Your task to perform on an android device: open sync settings in chrome Image 0: 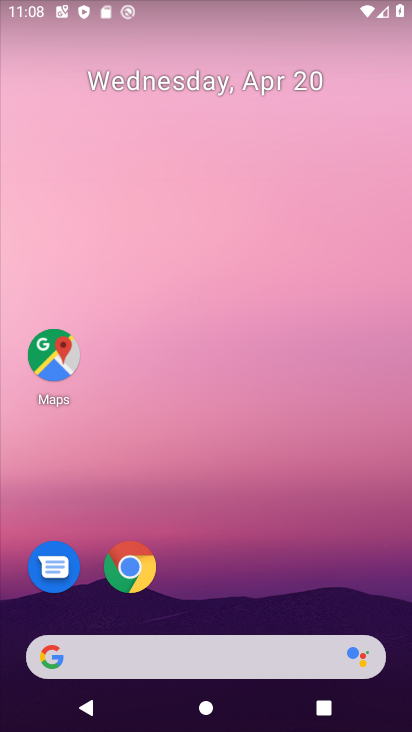
Step 0: drag from (258, 622) to (224, 81)
Your task to perform on an android device: open sync settings in chrome Image 1: 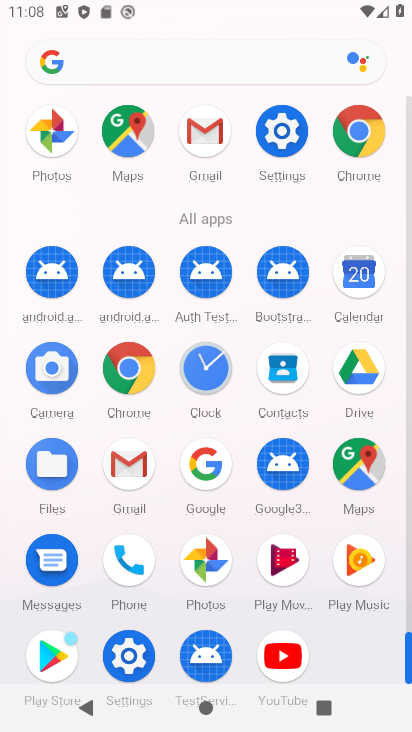
Step 1: drag from (2, 434) to (10, 317)
Your task to perform on an android device: open sync settings in chrome Image 2: 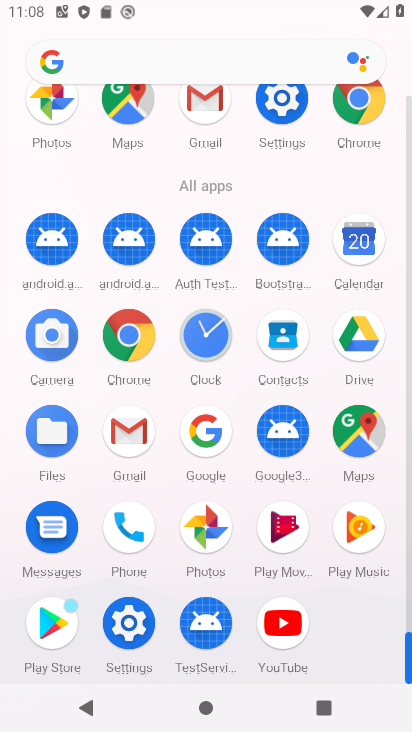
Step 2: click (132, 332)
Your task to perform on an android device: open sync settings in chrome Image 3: 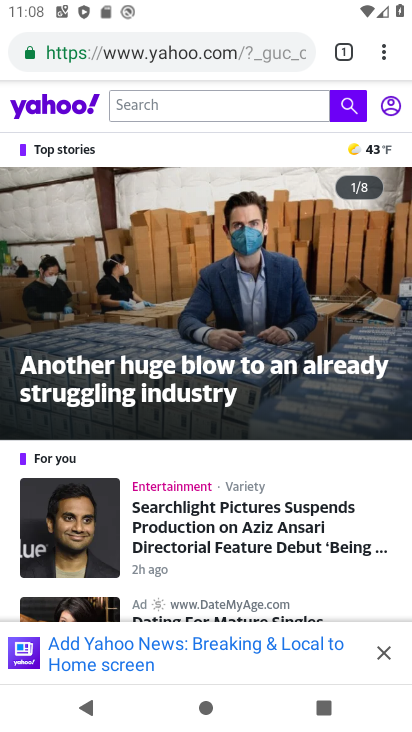
Step 3: drag from (385, 60) to (206, 596)
Your task to perform on an android device: open sync settings in chrome Image 4: 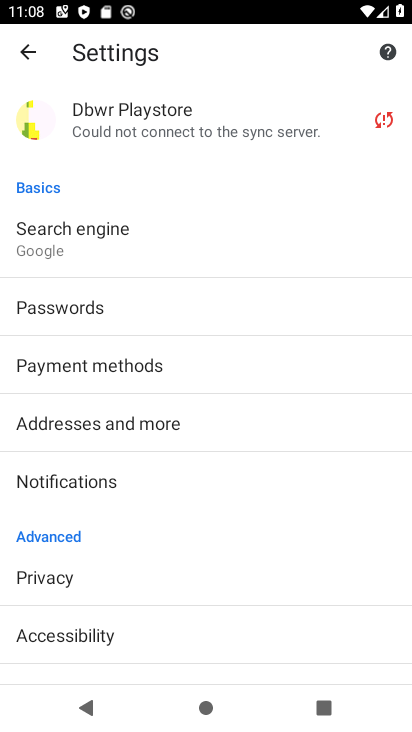
Step 4: drag from (227, 489) to (225, 178)
Your task to perform on an android device: open sync settings in chrome Image 5: 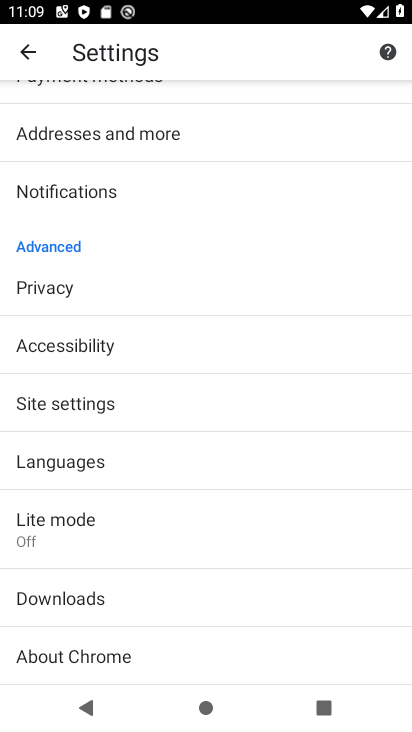
Step 5: drag from (156, 557) to (175, 267)
Your task to perform on an android device: open sync settings in chrome Image 6: 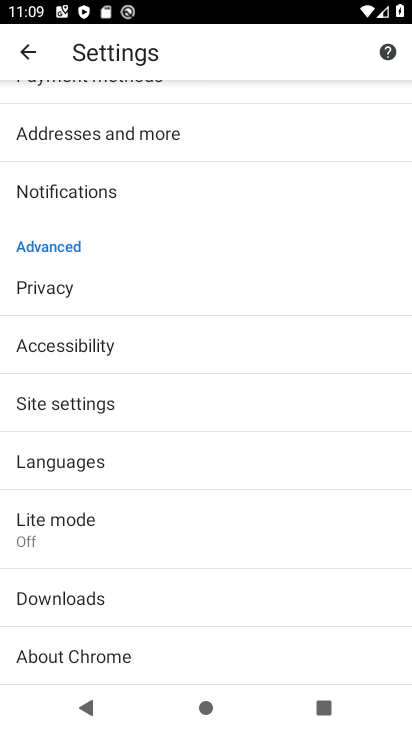
Step 6: drag from (186, 306) to (165, 555)
Your task to perform on an android device: open sync settings in chrome Image 7: 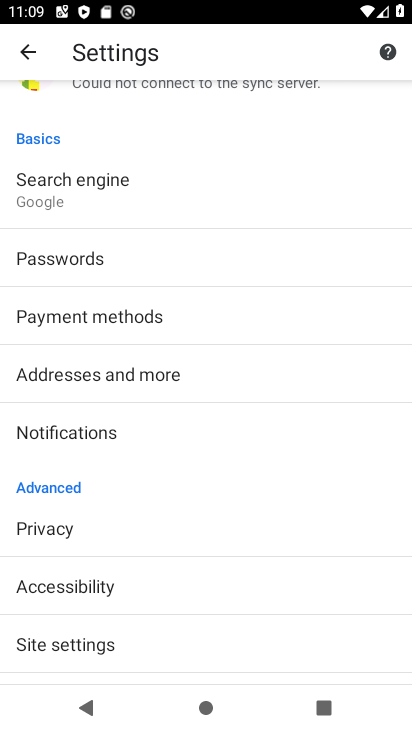
Step 7: drag from (185, 280) to (159, 645)
Your task to perform on an android device: open sync settings in chrome Image 8: 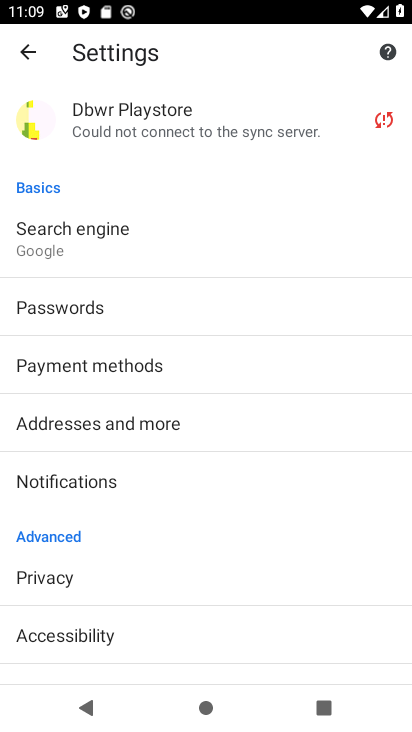
Step 8: drag from (234, 495) to (245, 345)
Your task to perform on an android device: open sync settings in chrome Image 9: 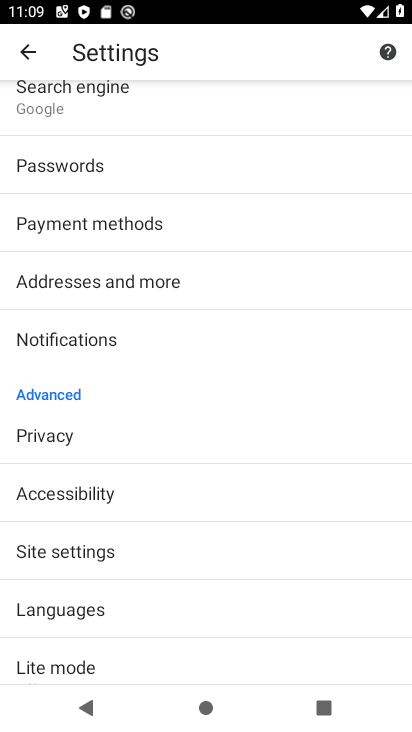
Step 9: drag from (242, 592) to (272, 217)
Your task to perform on an android device: open sync settings in chrome Image 10: 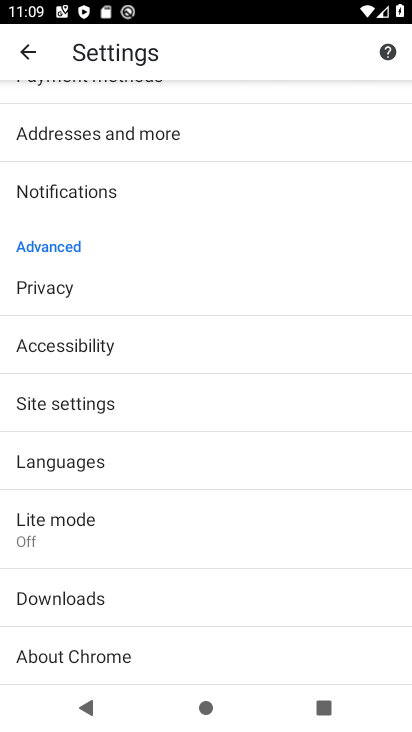
Step 10: click (118, 401)
Your task to perform on an android device: open sync settings in chrome Image 11: 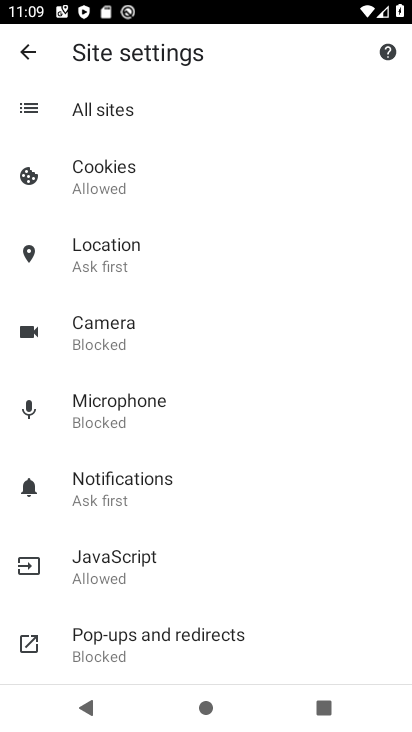
Step 11: click (21, 57)
Your task to perform on an android device: open sync settings in chrome Image 12: 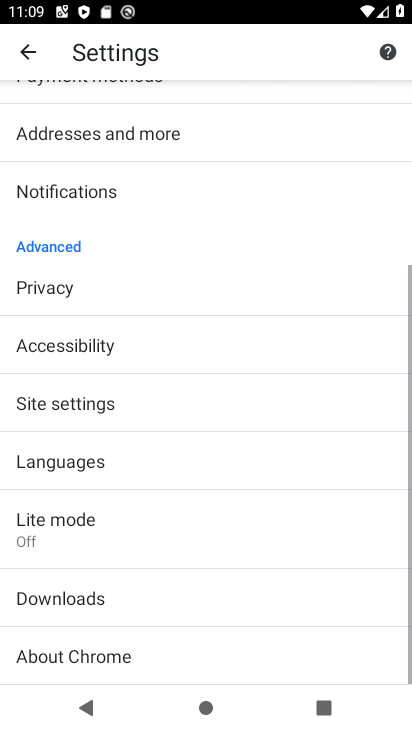
Step 12: drag from (257, 240) to (228, 612)
Your task to perform on an android device: open sync settings in chrome Image 13: 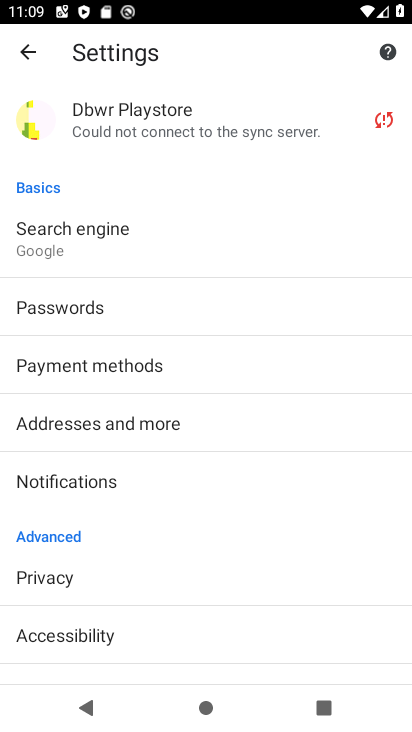
Step 13: click (171, 131)
Your task to perform on an android device: open sync settings in chrome Image 14: 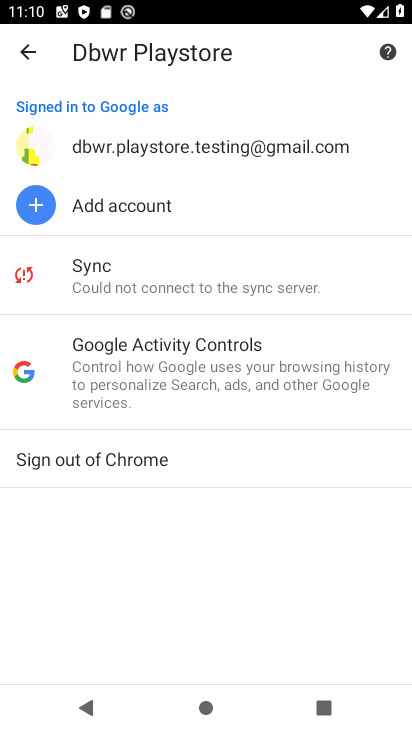
Step 14: click (145, 247)
Your task to perform on an android device: open sync settings in chrome Image 15: 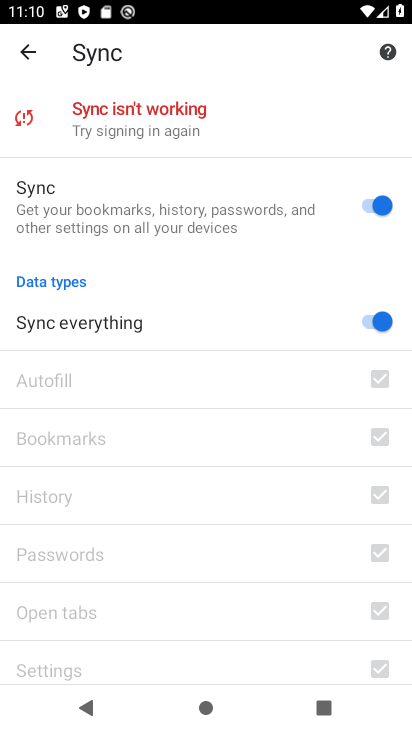
Step 15: task complete